Your task to perform on an android device: toggle translation in the chrome app Image 0: 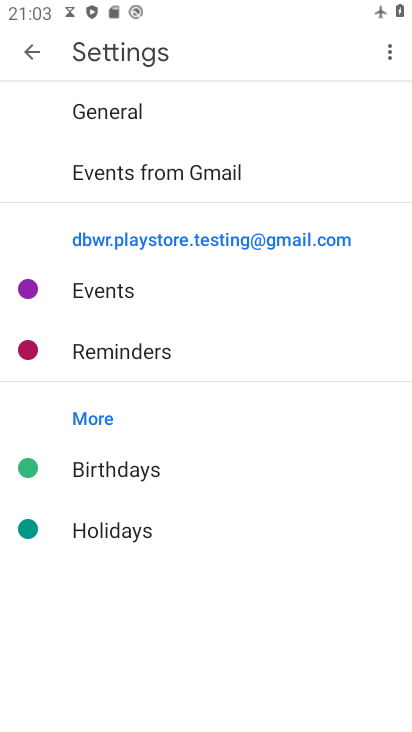
Step 0: press back button
Your task to perform on an android device: toggle translation in the chrome app Image 1: 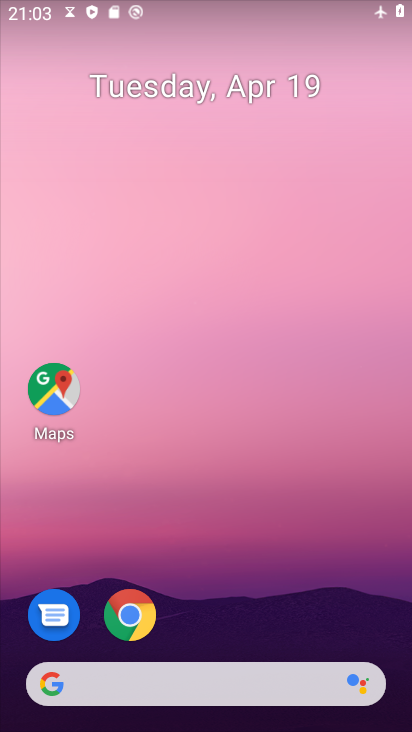
Step 1: drag from (330, 568) to (311, 21)
Your task to perform on an android device: toggle translation in the chrome app Image 2: 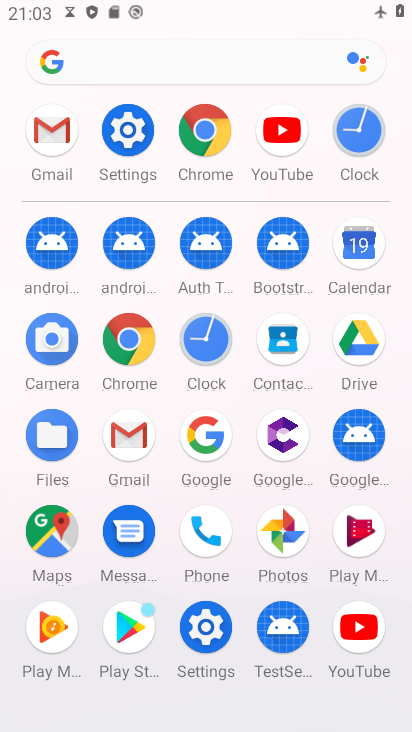
Step 2: click (127, 337)
Your task to perform on an android device: toggle translation in the chrome app Image 3: 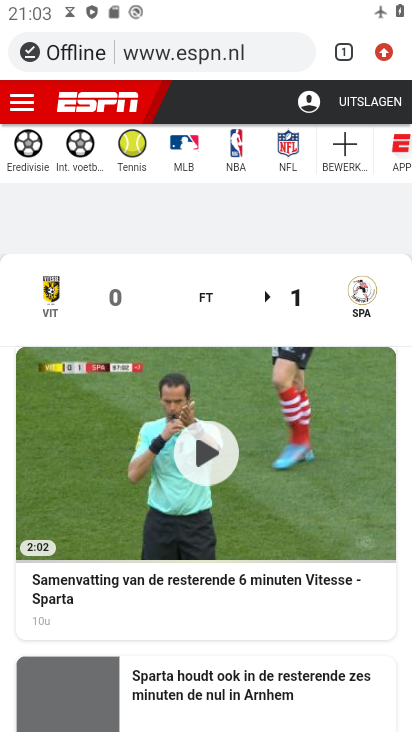
Step 3: drag from (384, 51) to (242, 638)
Your task to perform on an android device: toggle translation in the chrome app Image 4: 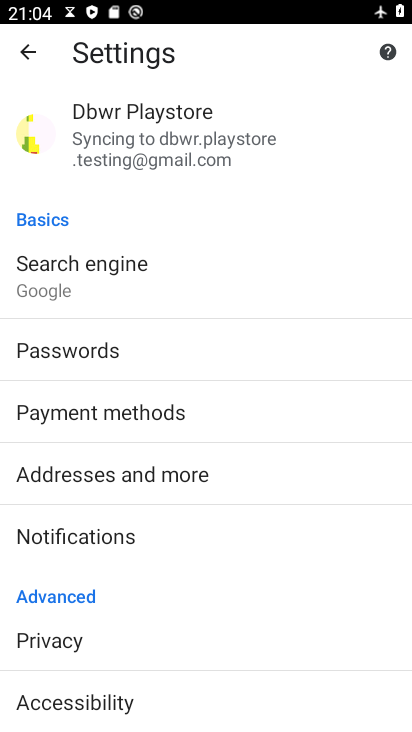
Step 4: drag from (270, 629) to (293, 251)
Your task to perform on an android device: toggle translation in the chrome app Image 5: 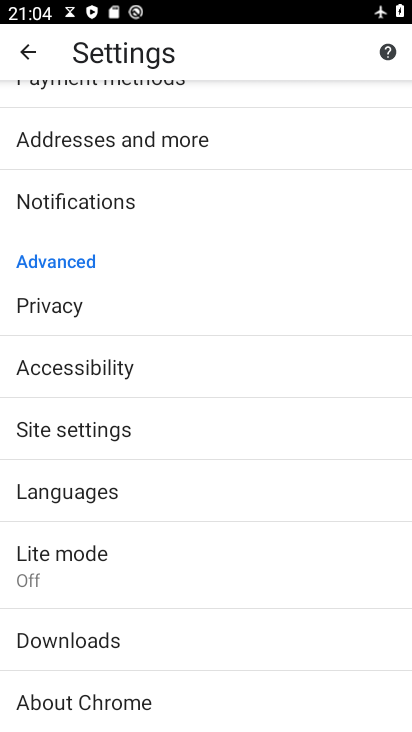
Step 5: click (130, 492)
Your task to perform on an android device: toggle translation in the chrome app Image 6: 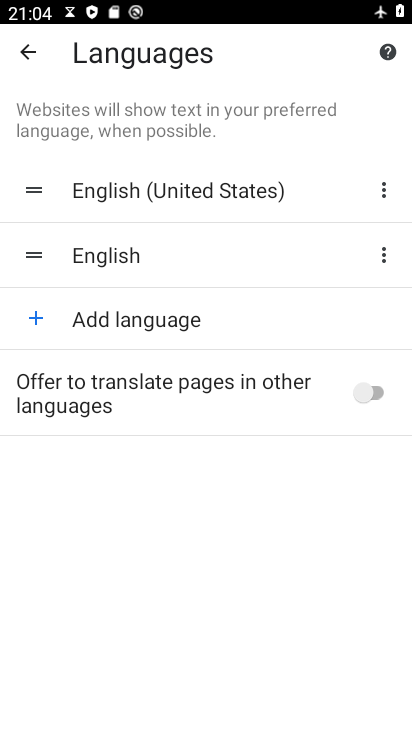
Step 6: click (359, 392)
Your task to perform on an android device: toggle translation in the chrome app Image 7: 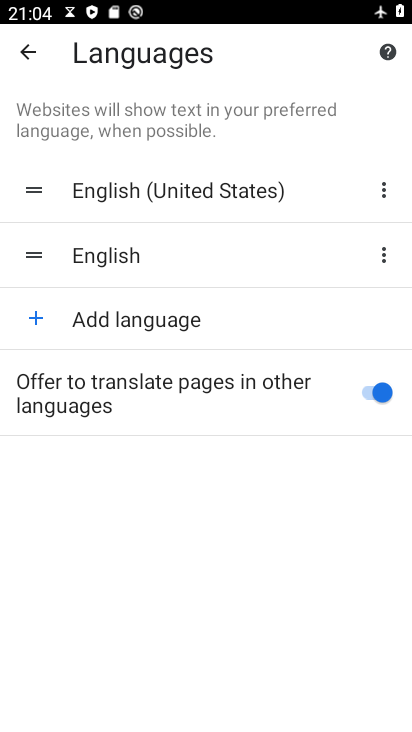
Step 7: task complete